Your task to perform on an android device: find photos in the google photos app Image 0: 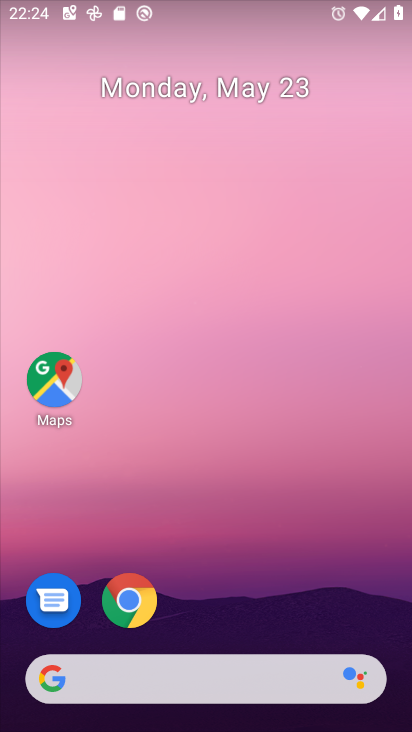
Step 0: drag from (206, 706) to (197, 225)
Your task to perform on an android device: find photos in the google photos app Image 1: 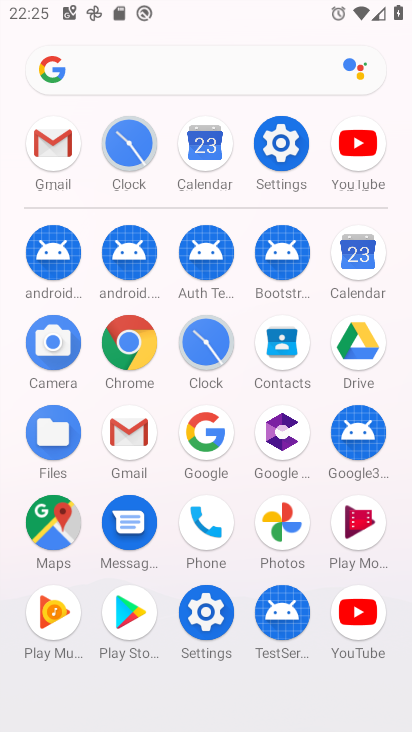
Step 1: click (284, 526)
Your task to perform on an android device: find photos in the google photos app Image 2: 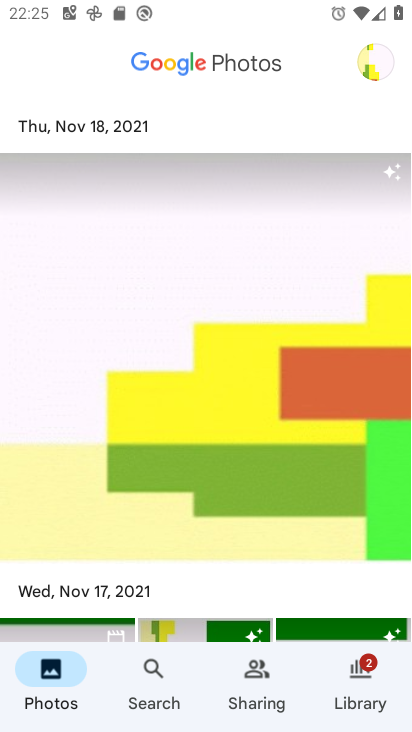
Step 2: task complete